Your task to perform on an android device: Go to eBay Image 0: 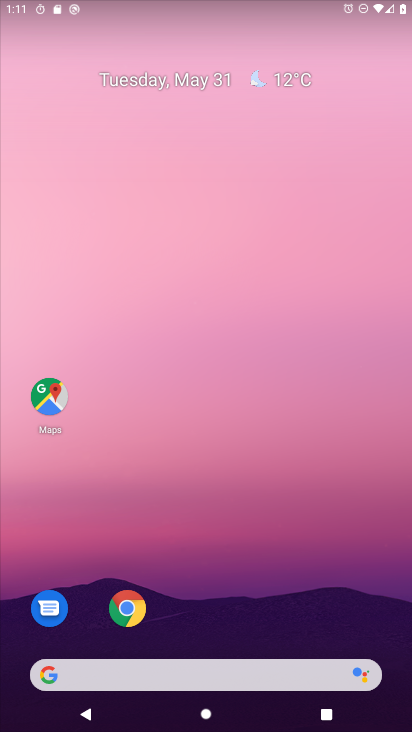
Step 0: click (127, 610)
Your task to perform on an android device: Go to eBay Image 1: 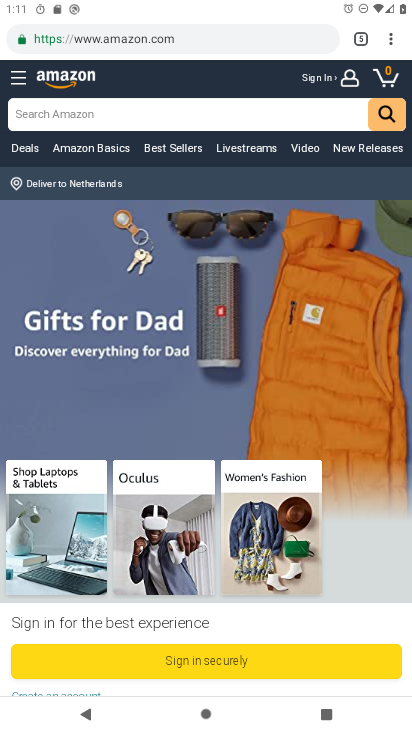
Step 1: click (103, 49)
Your task to perform on an android device: Go to eBay Image 2: 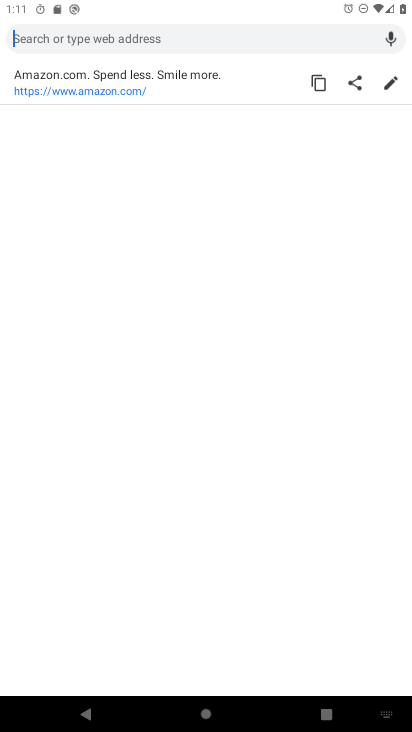
Step 2: type "ebay"
Your task to perform on an android device: Go to eBay Image 3: 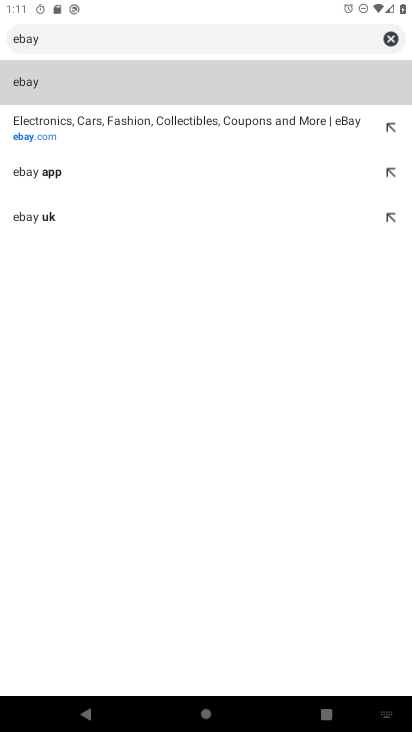
Step 3: click (37, 137)
Your task to perform on an android device: Go to eBay Image 4: 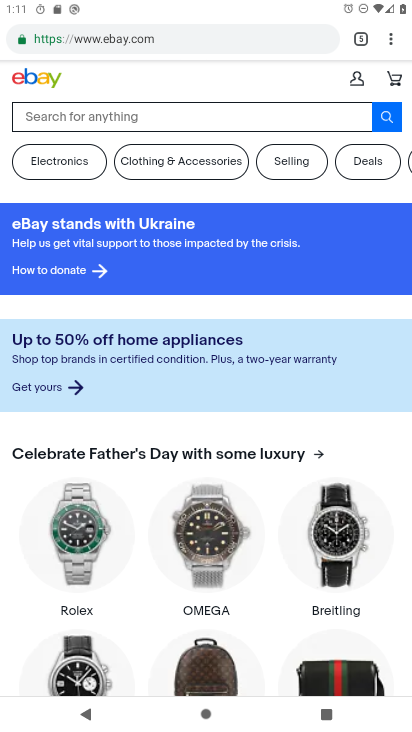
Step 4: task complete